Your task to perform on an android device: change the clock display to analog Image 0: 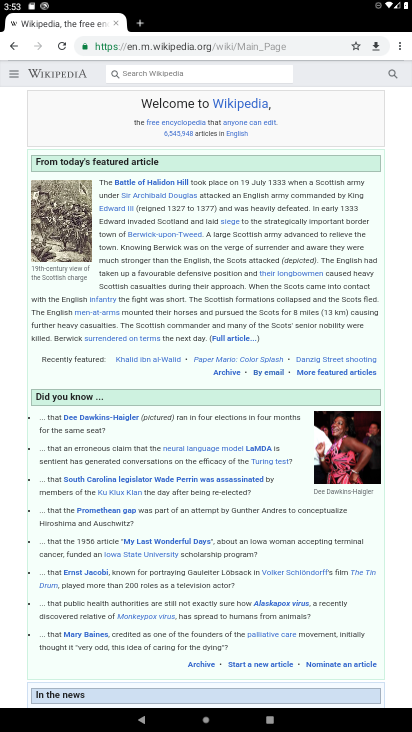
Step 0: press home button
Your task to perform on an android device: change the clock display to analog Image 1: 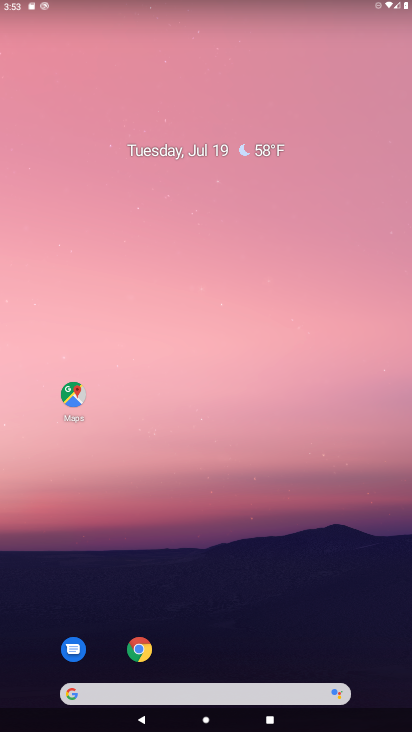
Step 1: drag from (235, 726) to (272, 79)
Your task to perform on an android device: change the clock display to analog Image 2: 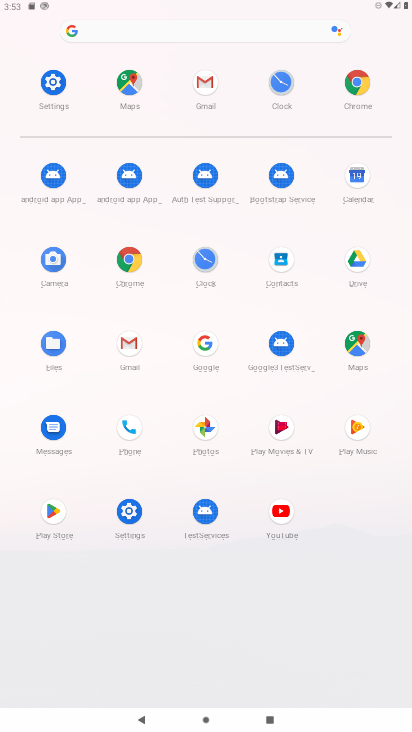
Step 2: click (202, 263)
Your task to perform on an android device: change the clock display to analog Image 3: 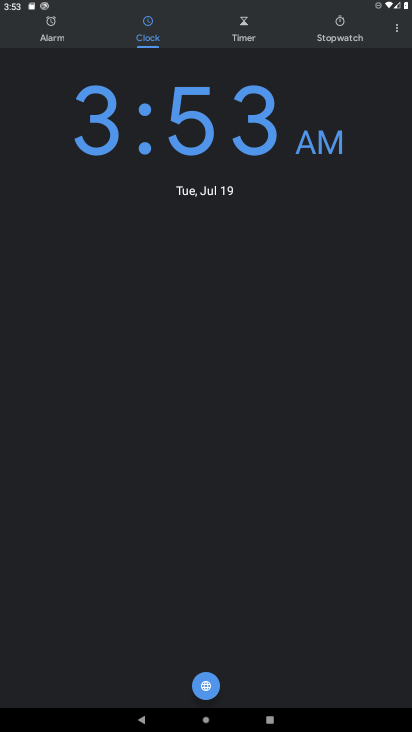
Step 3: click (398, 32)
Your task to perform on an android device: change the clock display to analog Image 4: 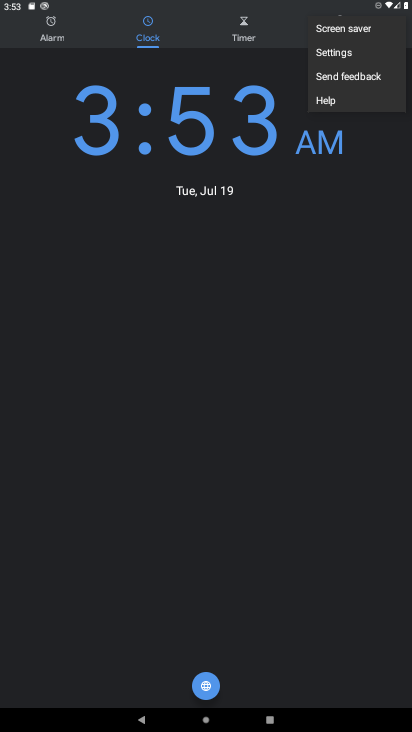
Step 4: click (347, 47)
Your task to perform on an android device: change the clock display to analog Image 5: 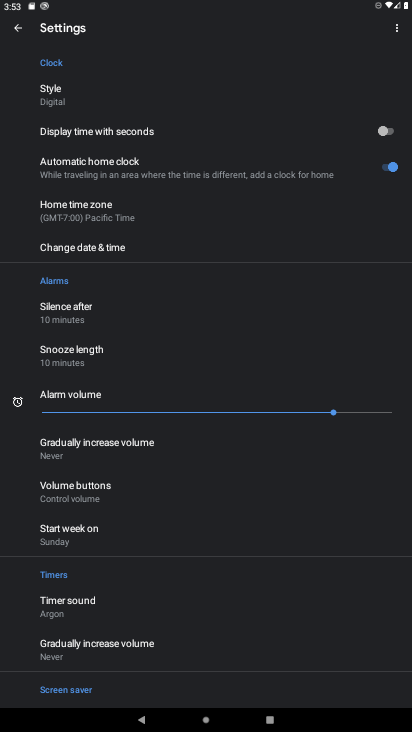
Step 5: click (54, 96)
Your task to perform on an android device: change the clock display to analog Image 6: 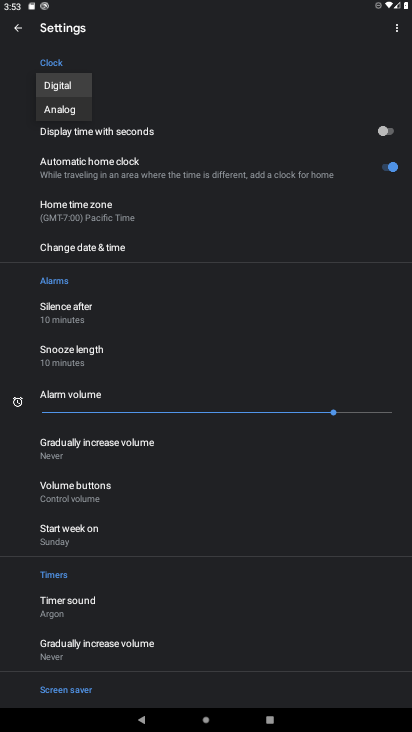
Step 6: click (63, 116)
Your task to perform on an android device: change the clock display to analog Image 7: 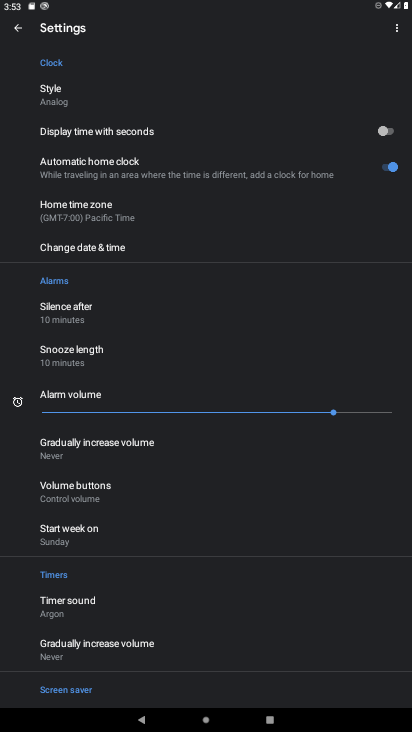
Step 7: task complete